Your task to perform on an android device: Open Google Chrome Image 0: 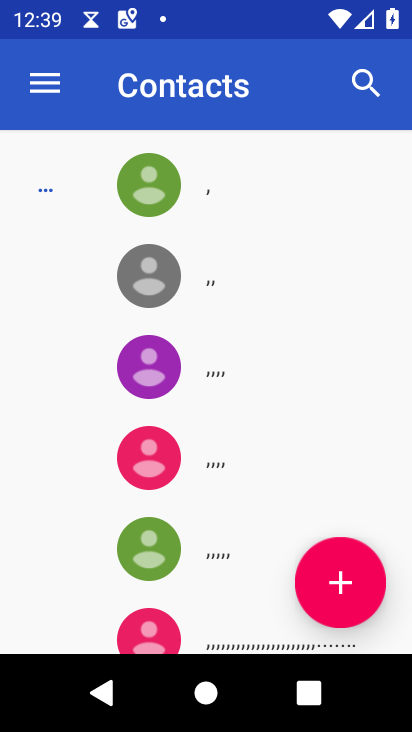
Step 0: press home button
Your task to perform on an android device: Open Google Chrome Image 1: 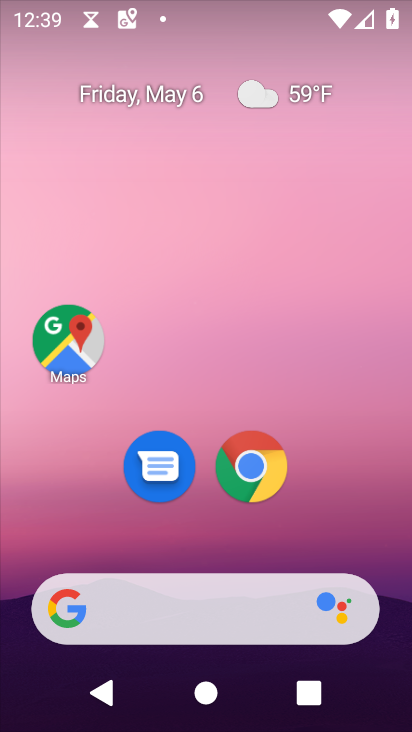
Step 1: click (264, 464)
Your task to perform on an android device: Open Google Chrome Image 2: 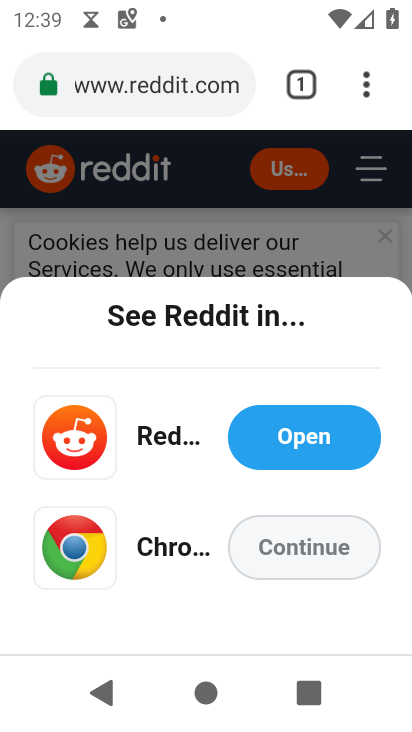
Step 2: task complete